Your task to perform on an android device: turn on the 12-hour format for clock Image 0: 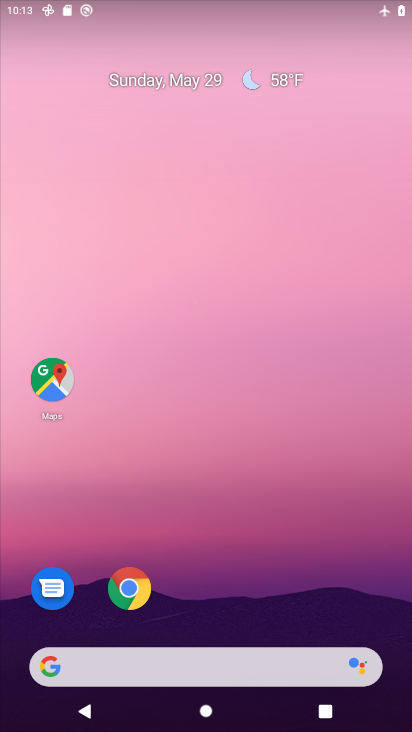
Step 0: drag from (248, 492) to (215, 234)
Your task to perform on an android device: turn on the 12-hour format for clock Image 1: 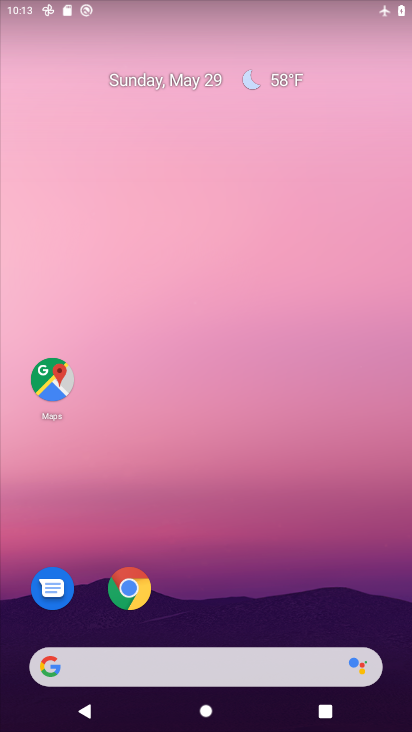
Step 1: drag from (273, 720) to (181, 179)
Your task to perform on an android device: turn on the 12-hour format for clock Image 2: 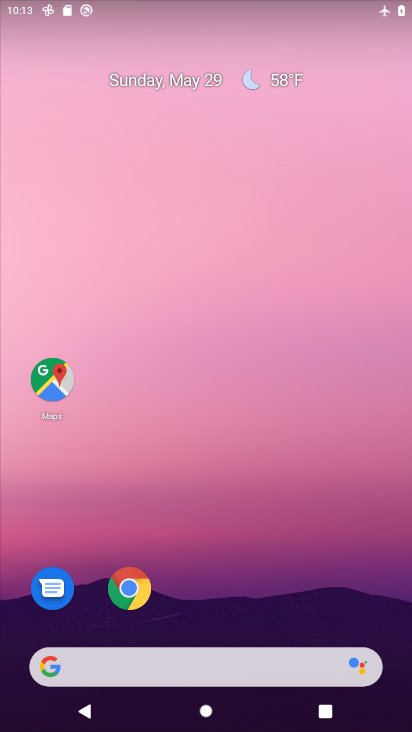
Step 2: drag from (308, 648) to (216, 108)
Your task to perform on an android device: turn on the 12-hour format for clock Image 3: 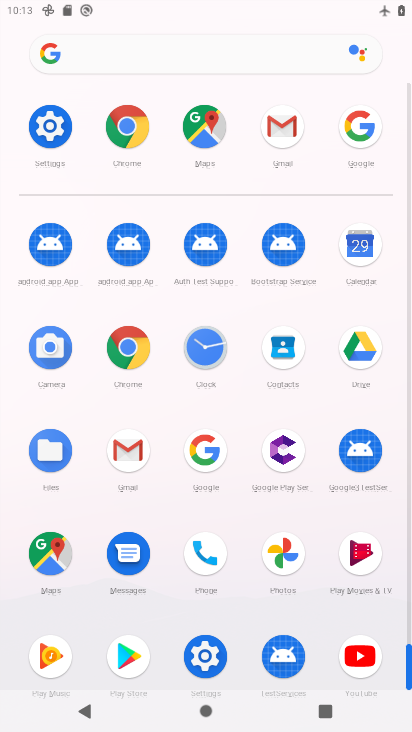
Step 3: drag from (266, 645) to (244, 271)
Your task to perform on an android device: turn on the 12-hour format for clock Image 4: 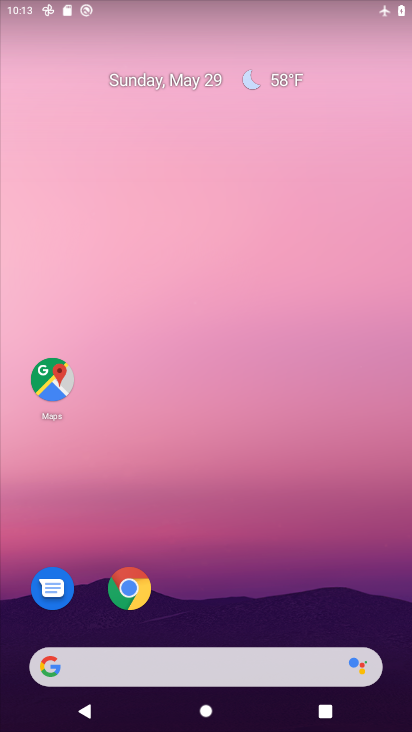
Step 4: click (204, 345)
Your task to perform on an android device: turn on the 12-hour format for clock Image 5: 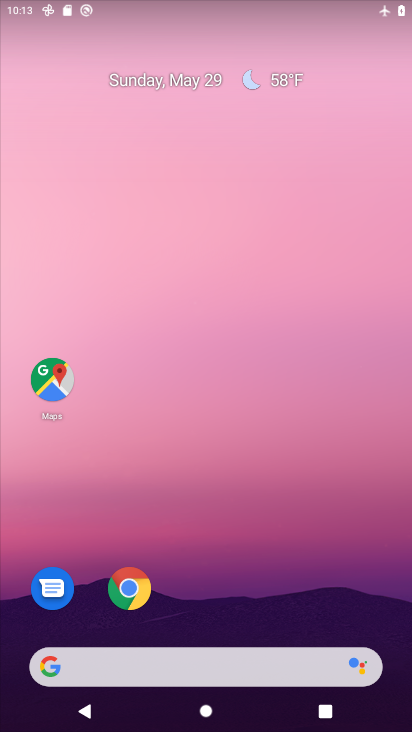
Step 5: drag from (274, 675) to (184, 179)
Your task to perform on an android device: turn on the 12-hour format for clock Image 6: 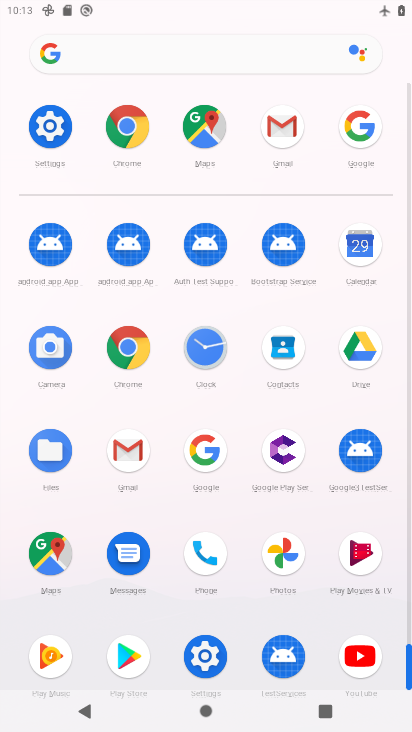
Step 6: click (212, 340)
Your task to perform on an android device: turn on the 12-hour format for clock Image 7: 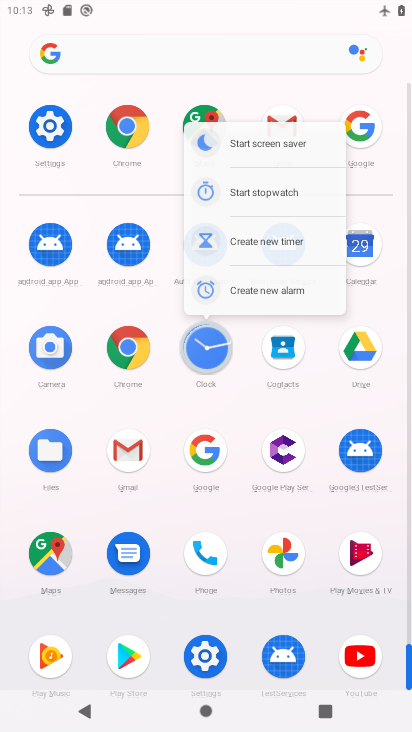
Step 7: click (214, 344)
Your task to perform on an android device: turn on the 12-hour format for clock Image 8: 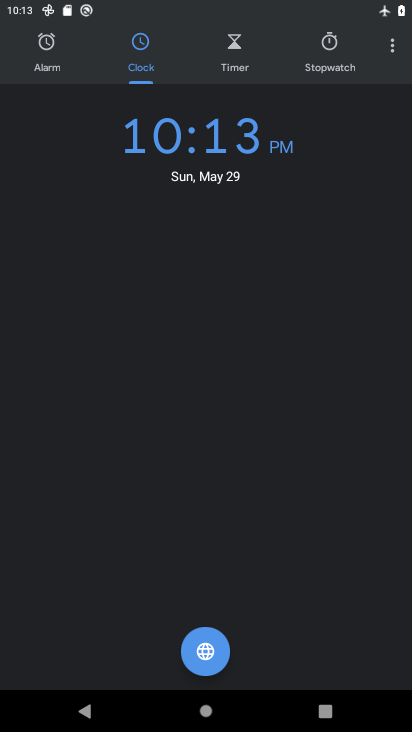
Step 8: click (389, 47)
Your task to perform on an android device: turn on the 12-hour format for clock Image 9: 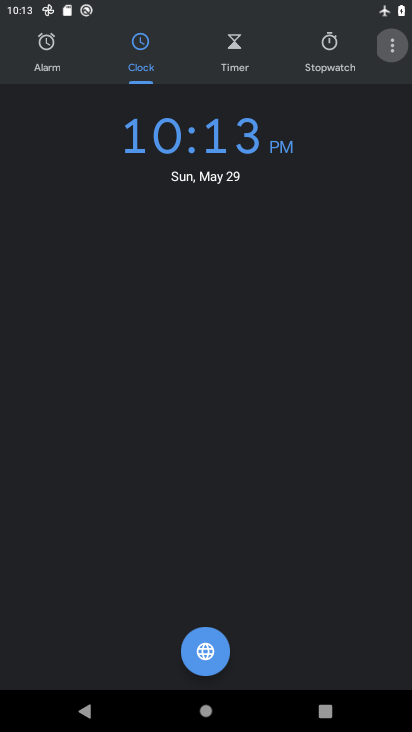
Step 9: click (389, 47)
Your task to perform on an android device: turn on the 12-hour format for clock Image 10: 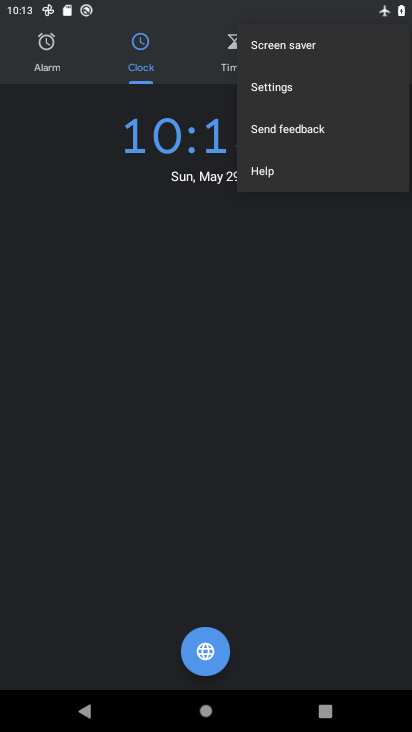
Step 10: click (281, 87)
Your task to perform on an android device: turn on the 12-hour format for clock Image 11: 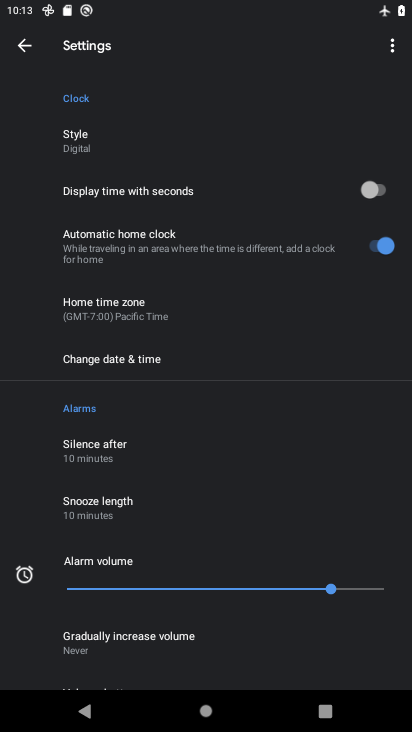
Step 11: click (111, 356)
Your task to perform on an android device: turn on the 12-hour format for clock Image 12: 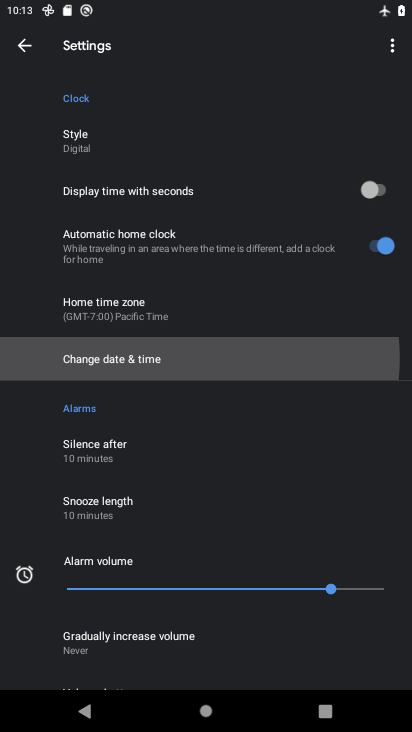
Step 12: click (111, 355)
Your task to perform on an android device: turn on the 12-hour format for clock Image 13: 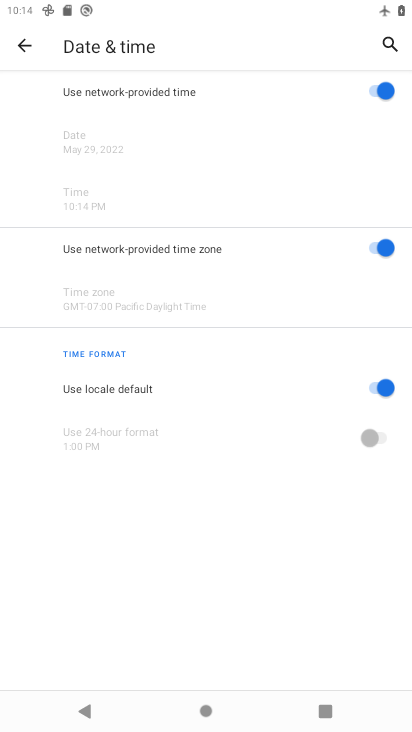
Step 13: task complete